Your task to perform on an android device: delete browsing data in the chrome app Image 0: 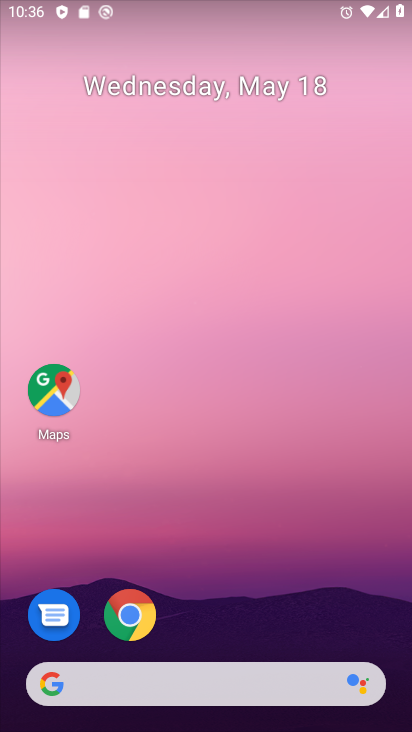
Step 0: drag from (154, 676) to (222, 175)
Your task to perform on an android device: delete browsing data in the chrome app Image 1: 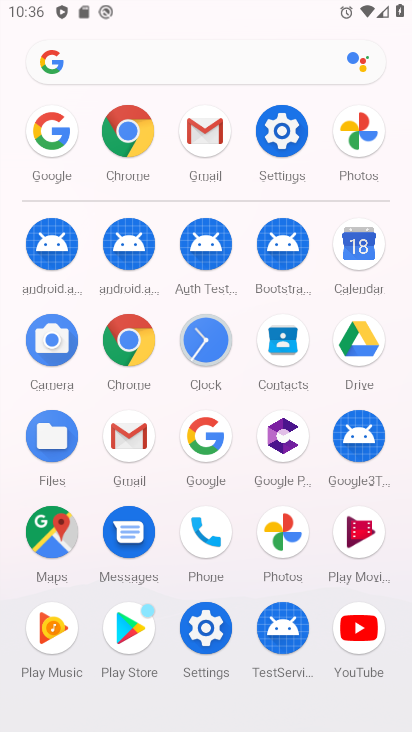
Step 1: click (113, 133)
Your task to perform on an android device: delete browsing data in the chrome app Image 2: 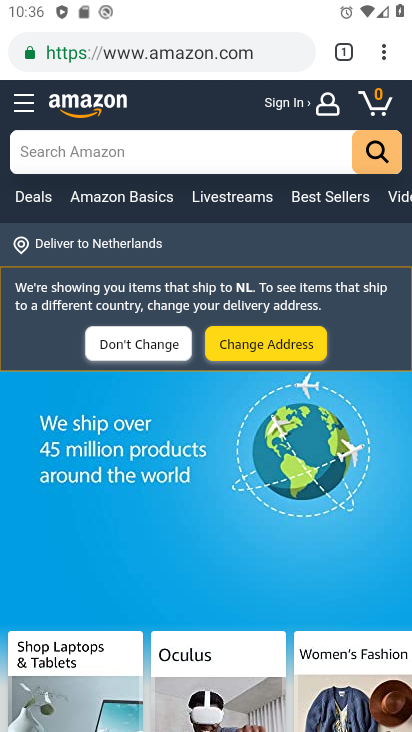
Step 2: click (349, 56)
Your task to perform on an android device: delete browsing data in the chrome app Image 3: 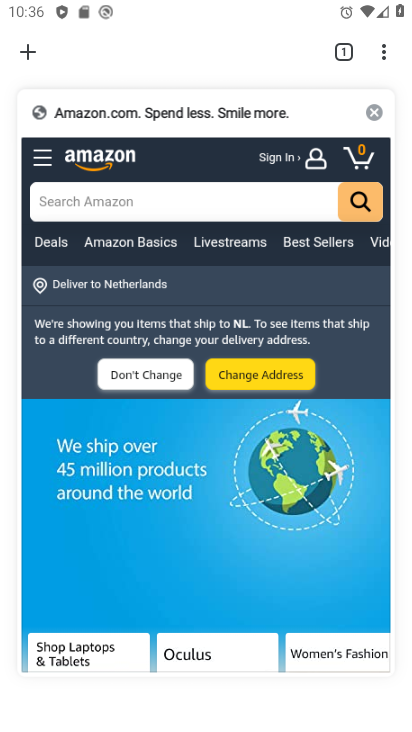
Step 3: click (345, 51)
Your task to perform on an android device: delete browsing data in the chrome app Image 4: 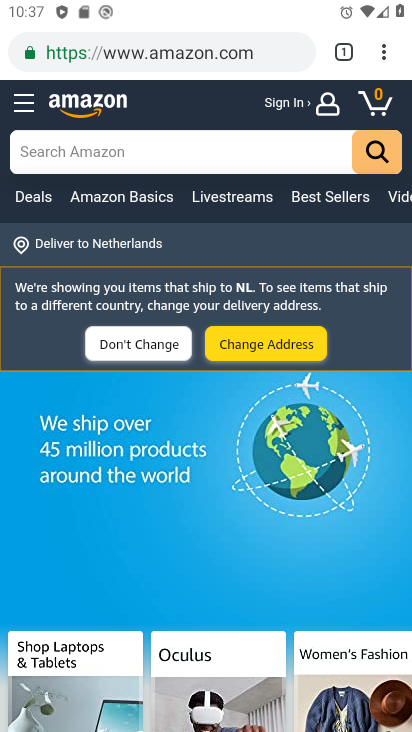
Step 4: click (392, 52)
Your task to perform on an android device: delete browsing data in the chrome app Image 5: 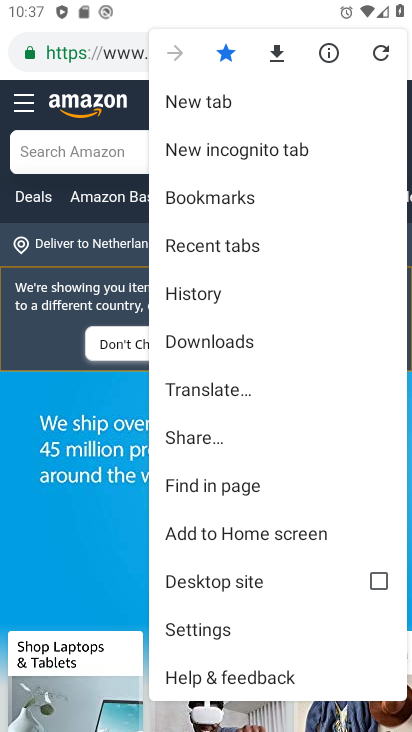
Step 5: click (198, 628)
Your task to perform on an android device: delete browsing data in the chrome app Image 6: 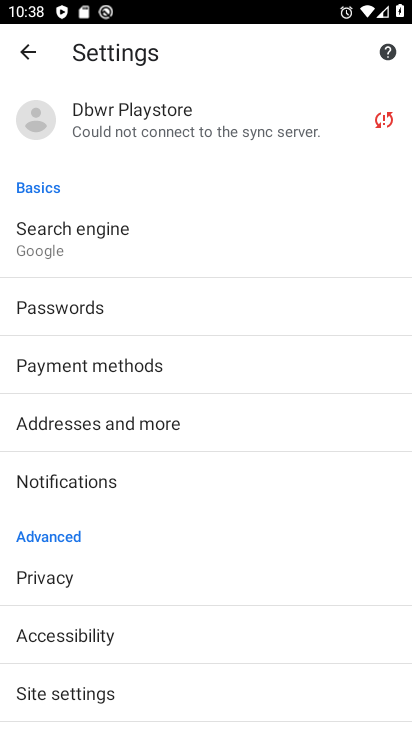
Step 6: click (21, 54)
Your task to perform on an android device: delete browsing data in the chrome app Image 7: 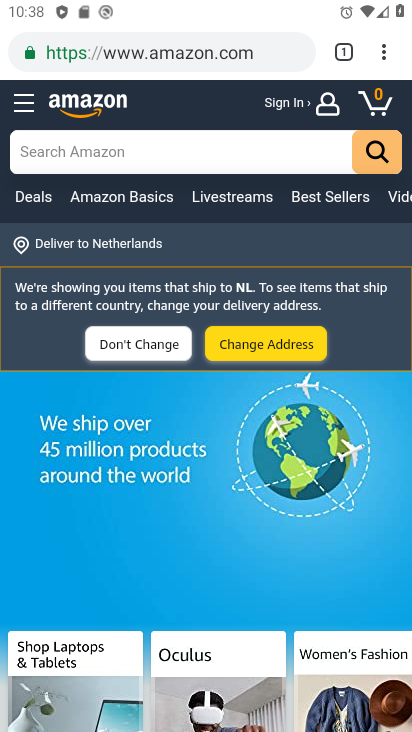
Step 7: click (383, 52)
Your task to perform on an android device: delete browsing data in the chrome app Image 8: 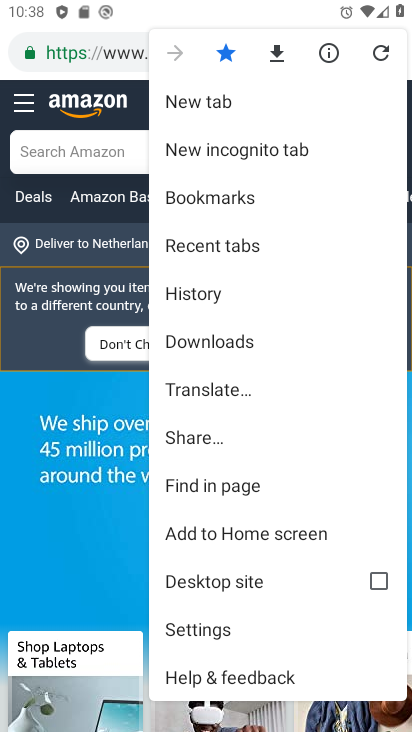
Step 8: click (193, 293)
Your task to perform on an android device: delete browsing data in the chrome app Image 9: 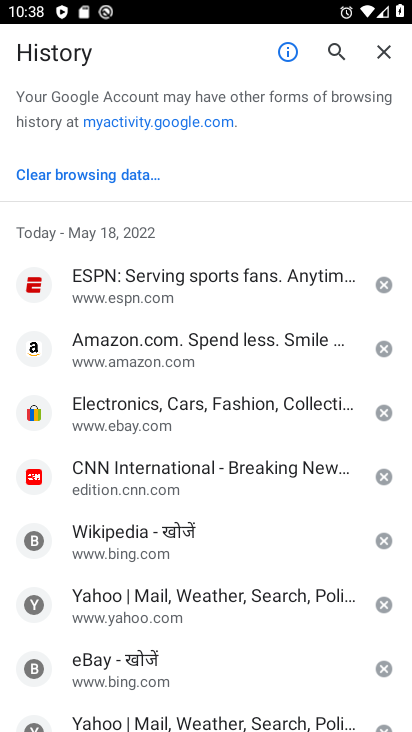
Step 9: click (103, 180)
Your task to perform on an android device: delete browsing data in the chrome app Image 10: 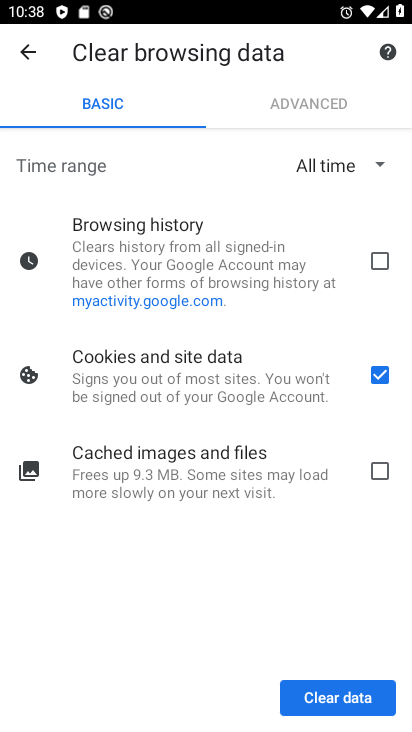
Step 10: click (379, 258)
Your task to perform on an android device: delete browsing data in the chrome app Image 11: 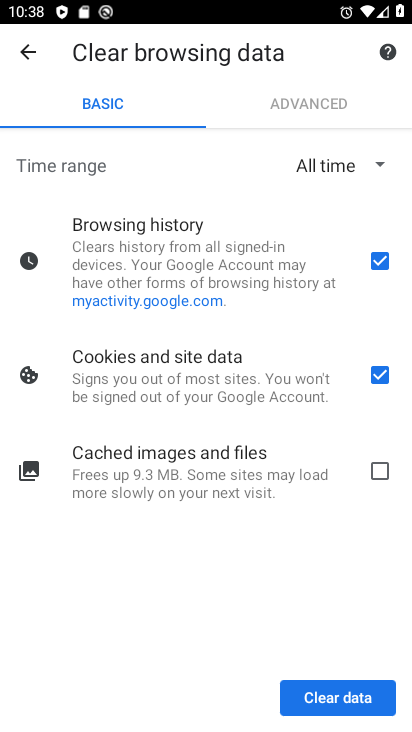
Step 11: click (376, 474)
Your task to perform on an android device: delete browsing data in the chrome app Image 12: 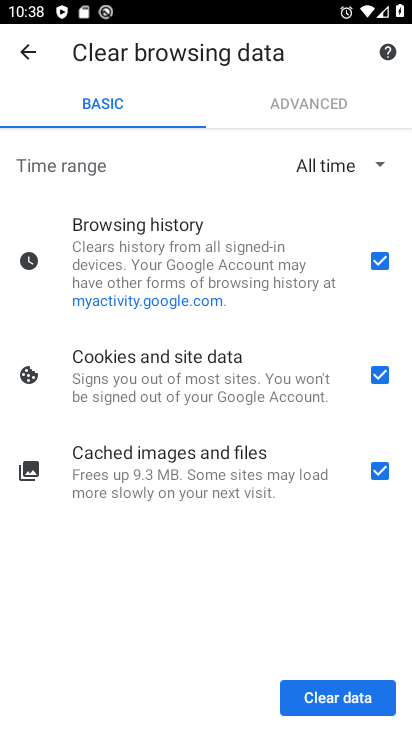
Step 12: click (334, 701)
Your task to perform on an android device: delete browsing data in the chrome app Image 13: 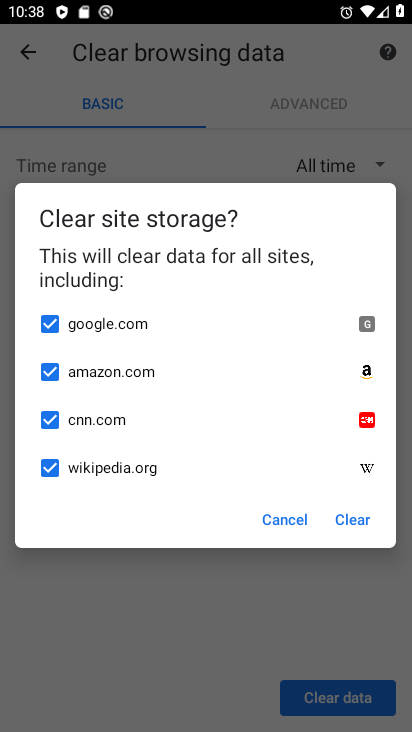
Step 13: click (348, 525)
Your task to perform on an android device: delete browsing data in the chrome app Image 14: 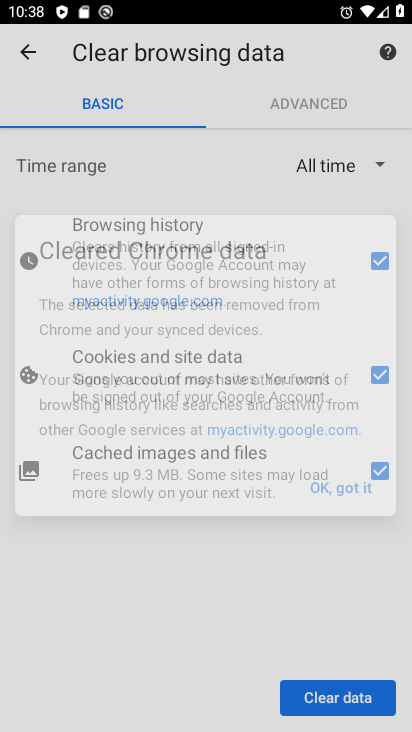
Step 14: click (348, 527)
Your task to perform on an android device: delete browsing data in the chrome app Image 15: 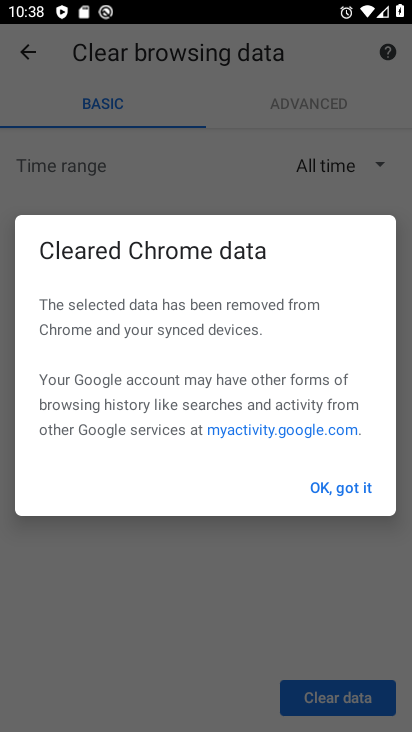
Step 15: click (351, 492)
Your task to perform on an android device: delete browsing data in the chrome app Image 16: 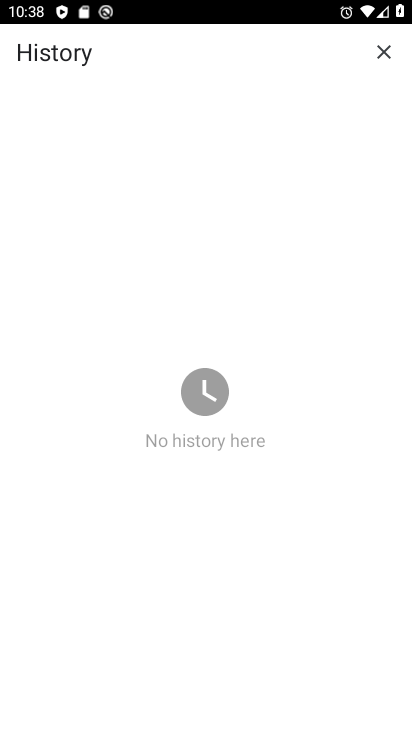
Step 16: task complete